Your task to perform on an android device: Go to network settings Image 0: 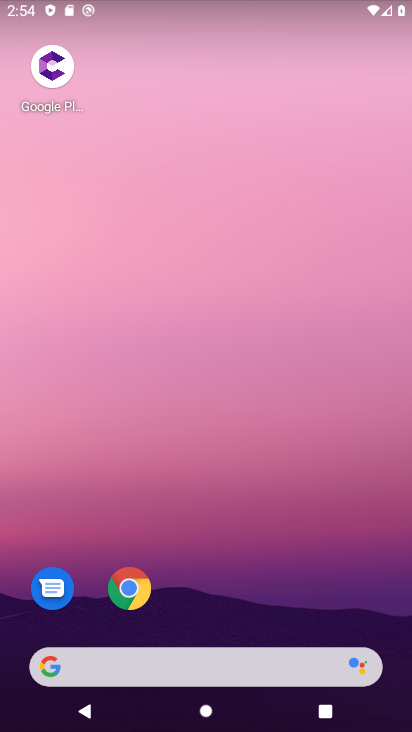
Step 0: drag from (191, 593) to (296, 169)
Your task to perform on an android device: Go to network settings Image 1: 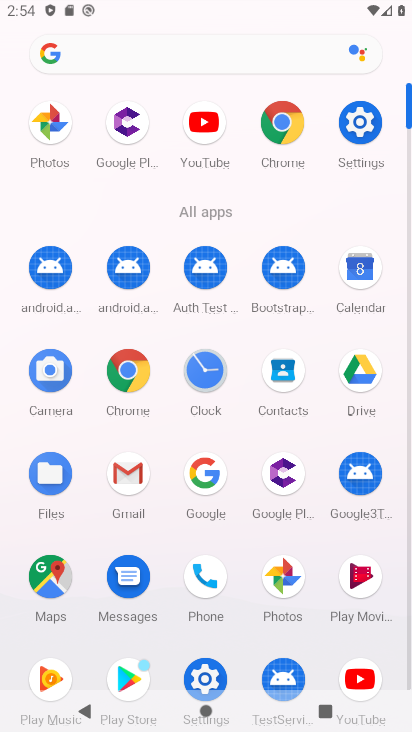
Step 1: click (364, 126)
Your task to perform on an android device: Go to network settings Image 2: 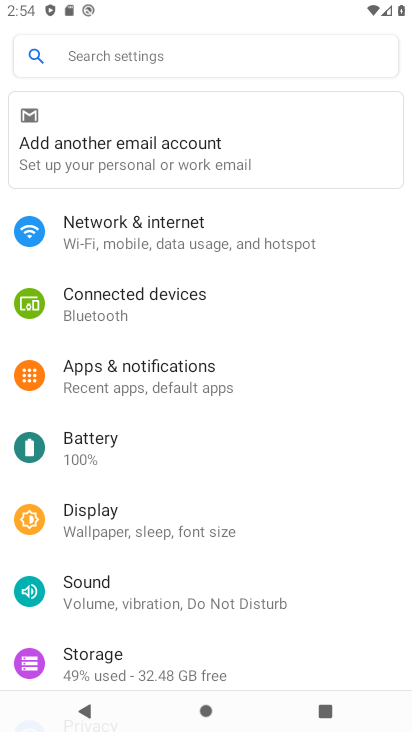
Step 2: click (163, 230)
Your task to perform on an android device: Go to network settings Image 3: 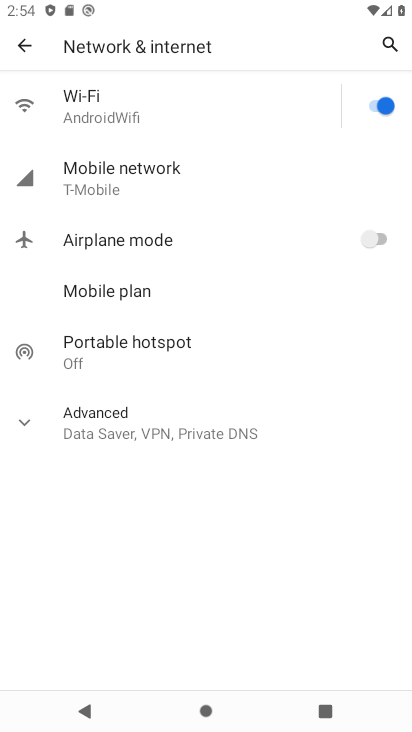
Step 3: click (154, 166)
Your task to perform on an android device: Go to network settings Image 4: 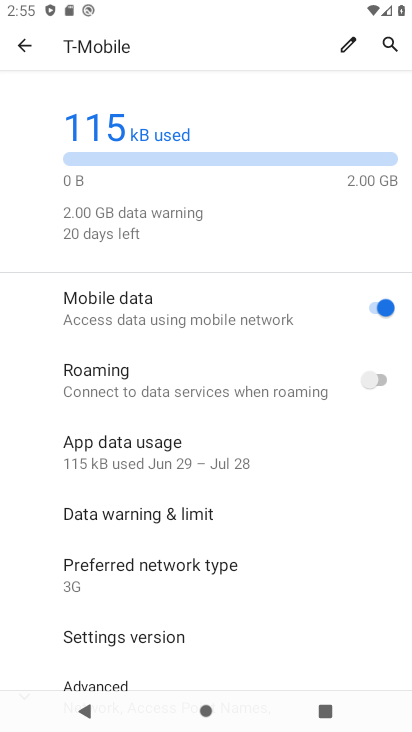
Step 4: task complete